Your task to perform on an android device: Check the weather Image 0: 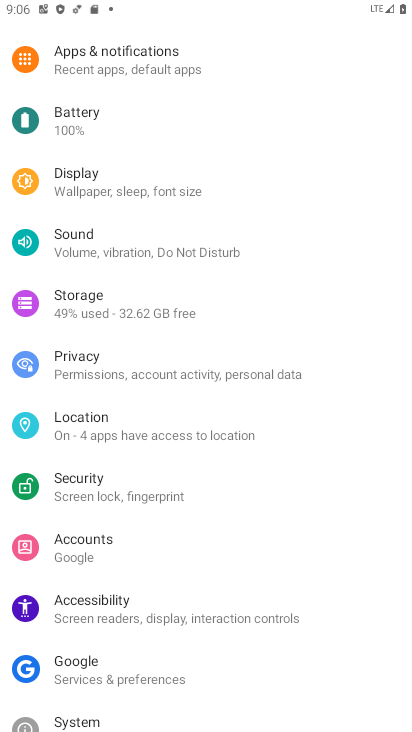
Step 0: press home button
Your task to perform on an android device: Check the weather Image 1: 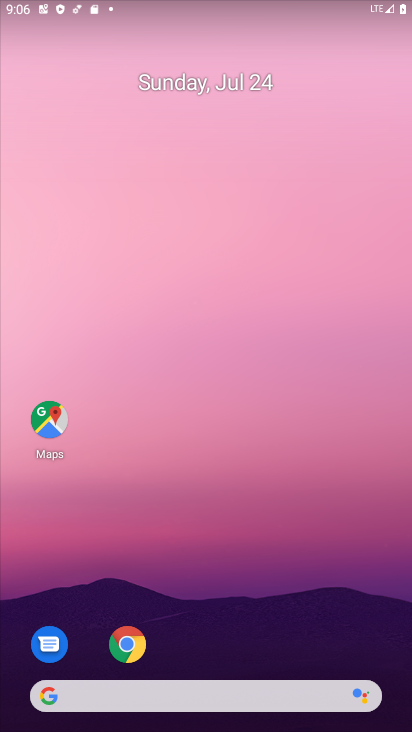
Step 1: click (111, 698)
Your task to perform on an android device: Check the weather Image 2: 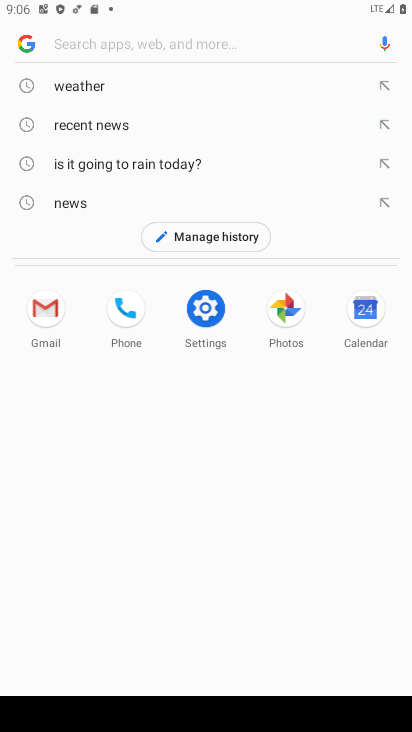
Step 2: click (89, 83)
Your task to perform on an android device: Check the weather Image 3: 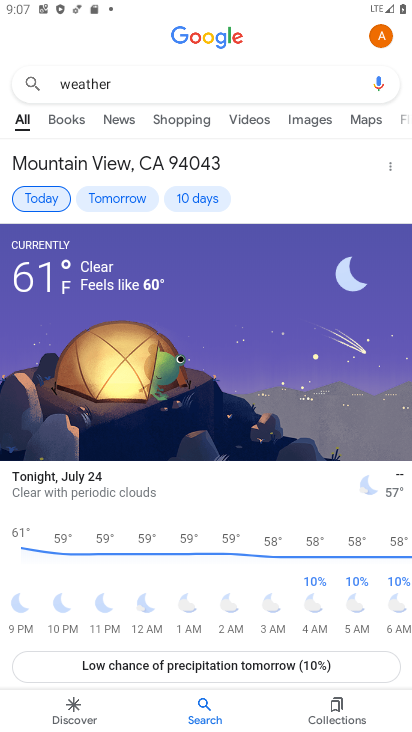
Step 3: task complete